Your task to perform on an android device: turn off smart reply in the gmail app Image 0: 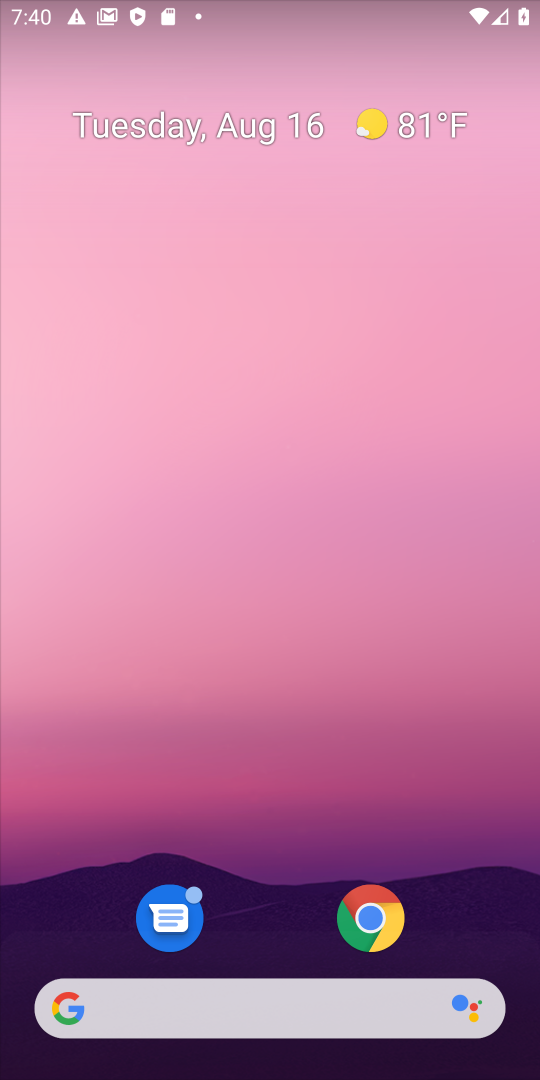
Step 0: drag from (263, 1064) to (380, 294)
Your task to perform on an android device: turn off smart reply in the gmail app Image 1: 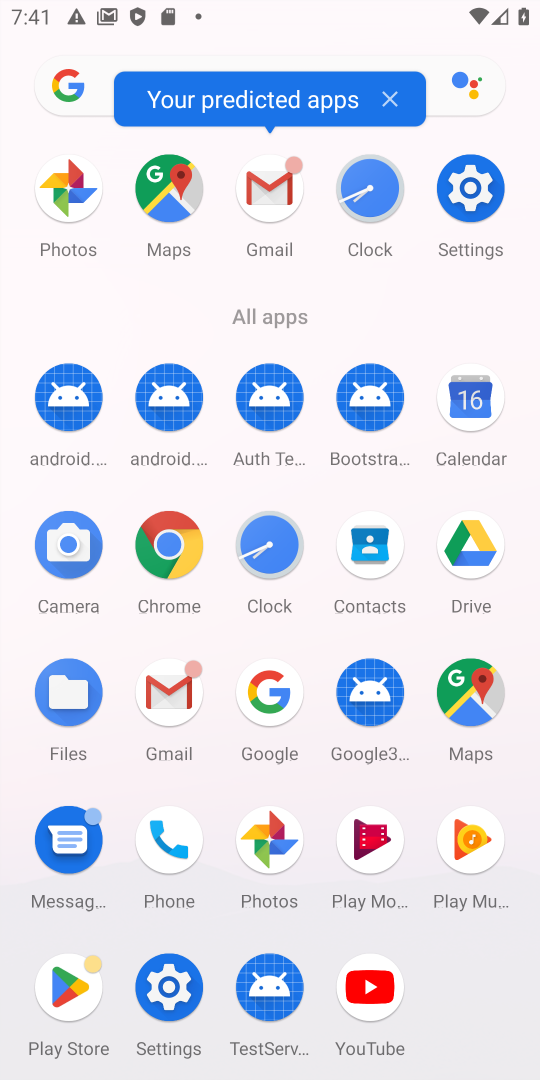
Step 1: click (175, 705)
Your task to perform on an android device: turn off smart reply in the gmail app Image 2: 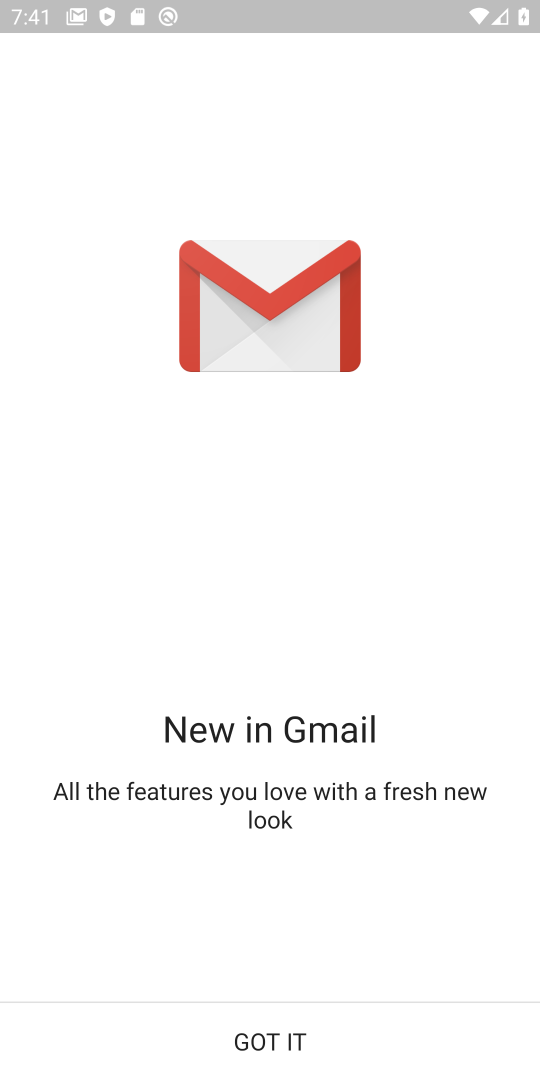
Step 2: click (310, 1051)
Your task to perform on an android device: turn off smart reply in the gmail app Image 3: 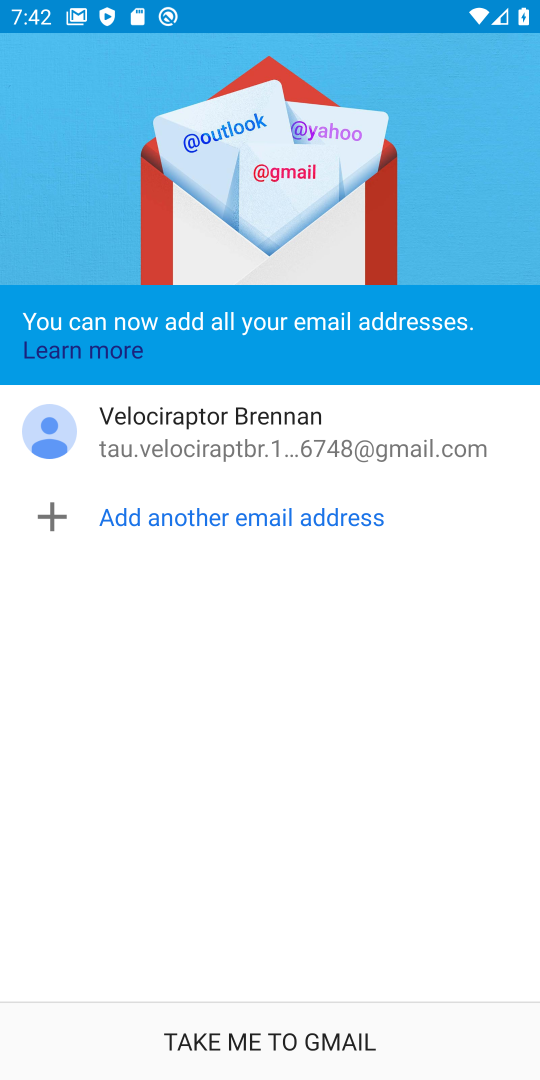
Step 3: click (297, 1026)
Your task to perform on an android device: turn off smart reply in the gmail app Image 4: 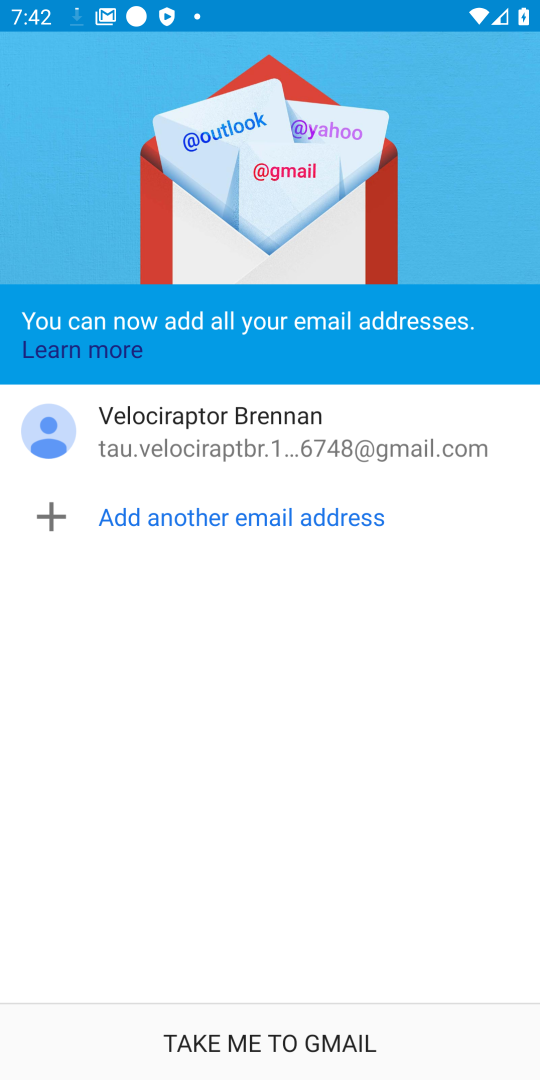
Step 4: click (297, 1047)
Your task to perform on an android device: turn off smart reply in the gmail app Image 5: 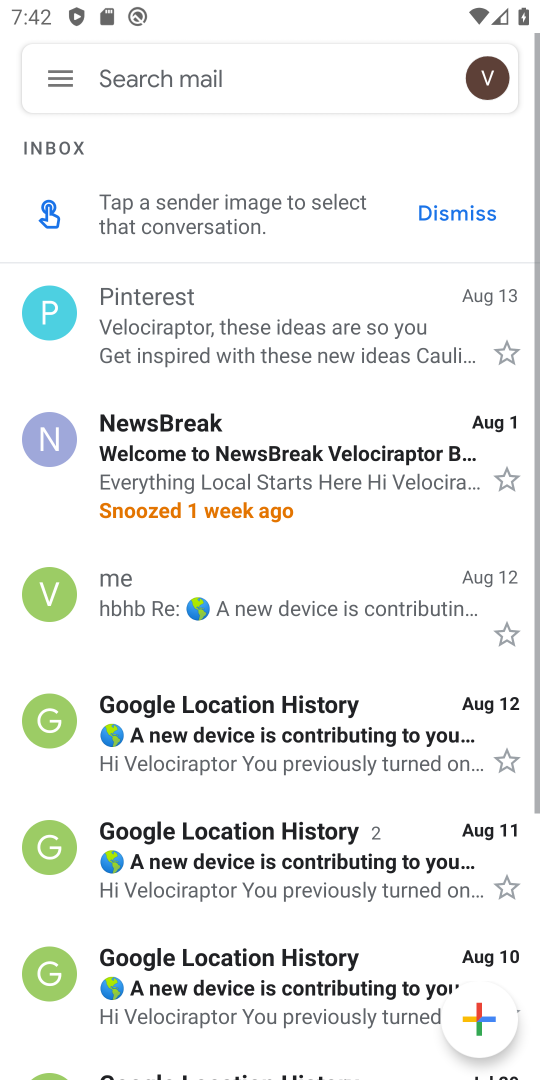
Step 5: click (47, 87)
Your task to perform on an android device: turn off smart reply in the gmail app Image 6: 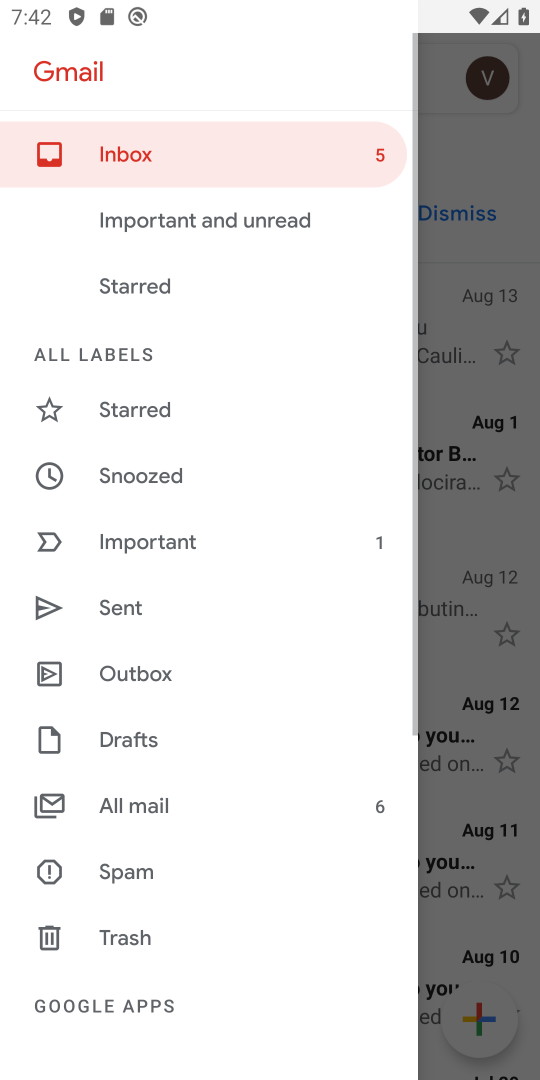
Step 6: drag from (193, 813) to (481, 107)
Your task to perform on an android device: turn off smart reply in the gmail app Image 7: 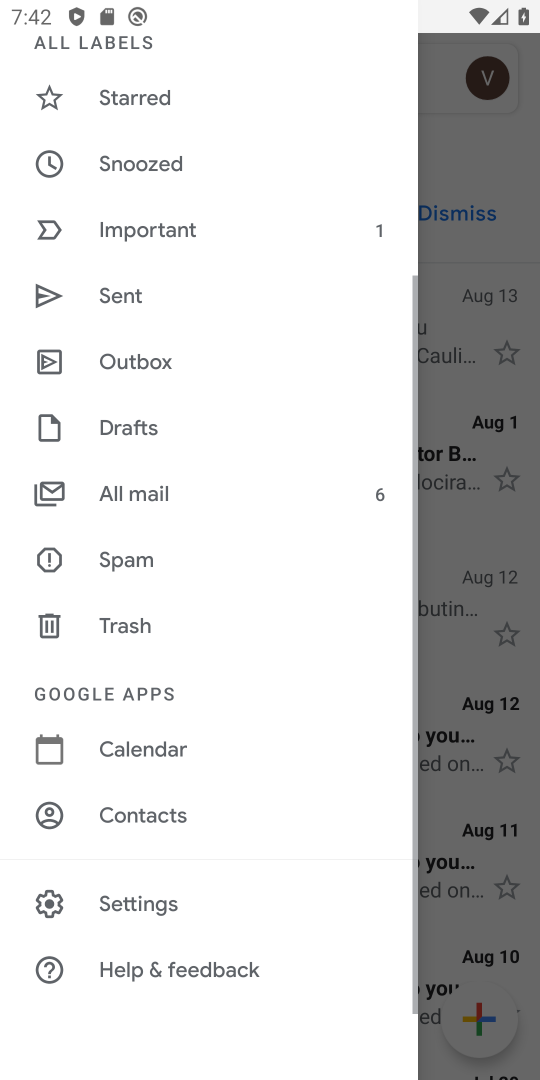
Step 7: click (164, 899)
Your task to perform on an android device: turn off smart reply in the gmail app Image 8: 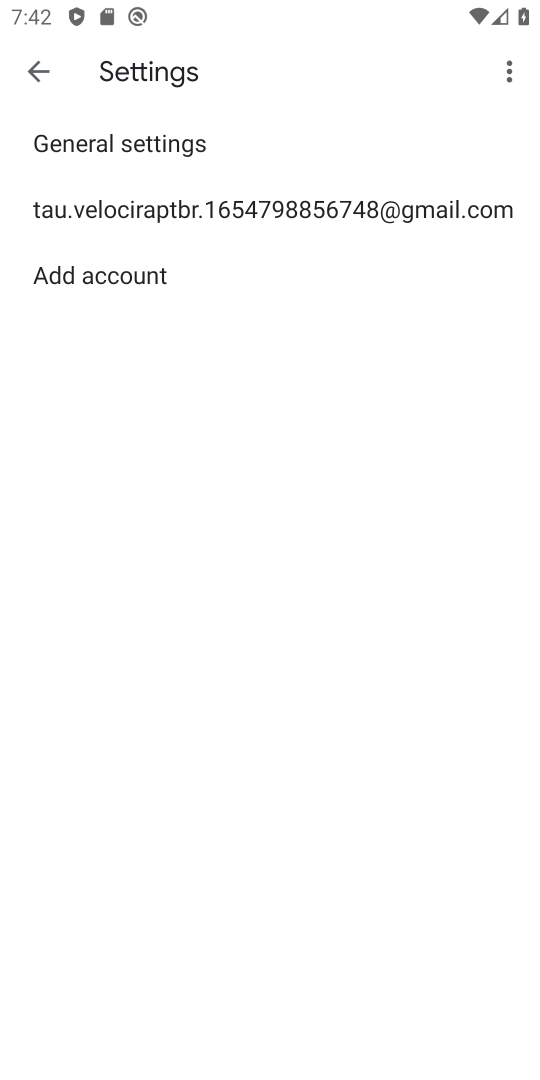
Step 8: click (294, 209)
Your task to perform on an android device: turn off smart reply in the gmail app Image 9: 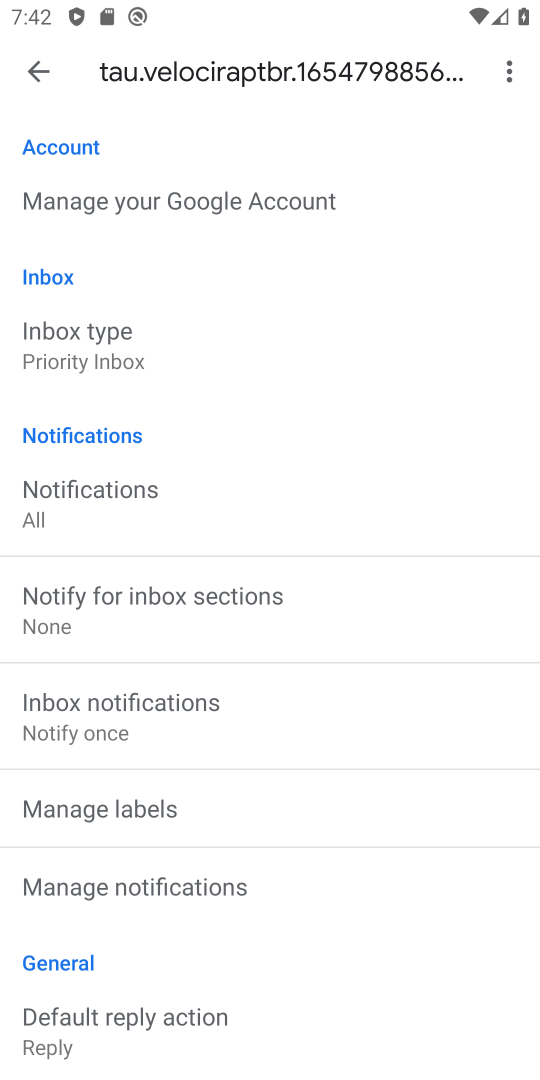
Step 9: drag from (250, 756) to (482, 183)
Your task to perform on an android device: turn off smart reply in the gmail app Image 10: 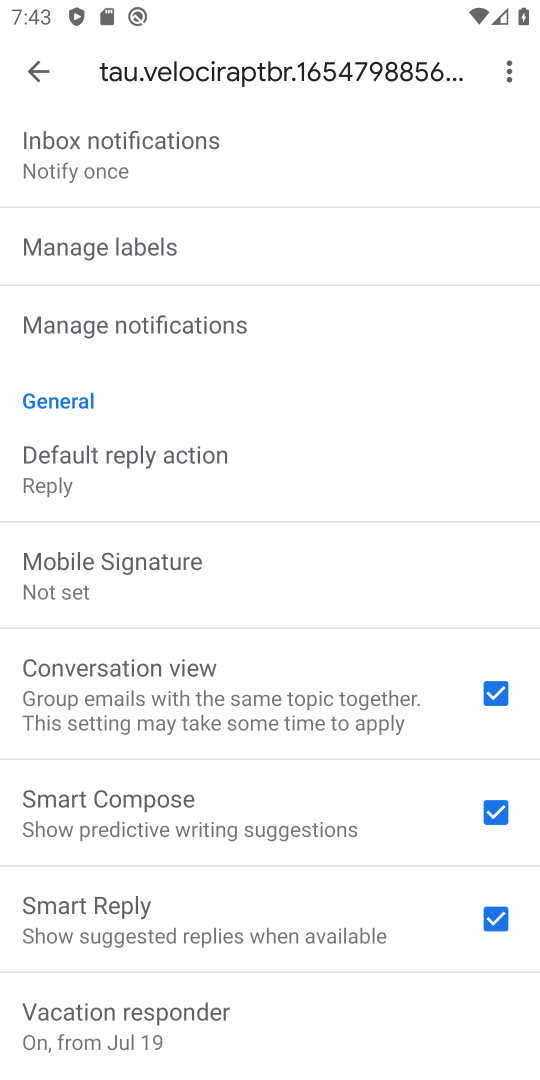
Step 10: drag from (238, 798) to (322, 214)
Your task to perform on an android device: turn off smart reply in the gmail app Image 11: 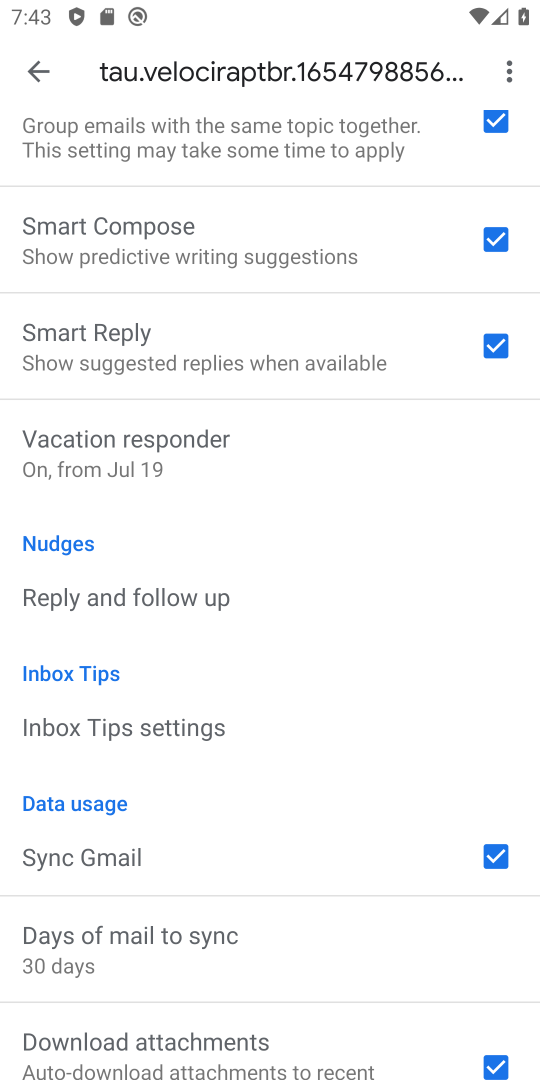
Step 11: drag from (238, 882) to (300, 284)
Your task to perform on an android device: turn off smart reply in the gmail app Image 12: 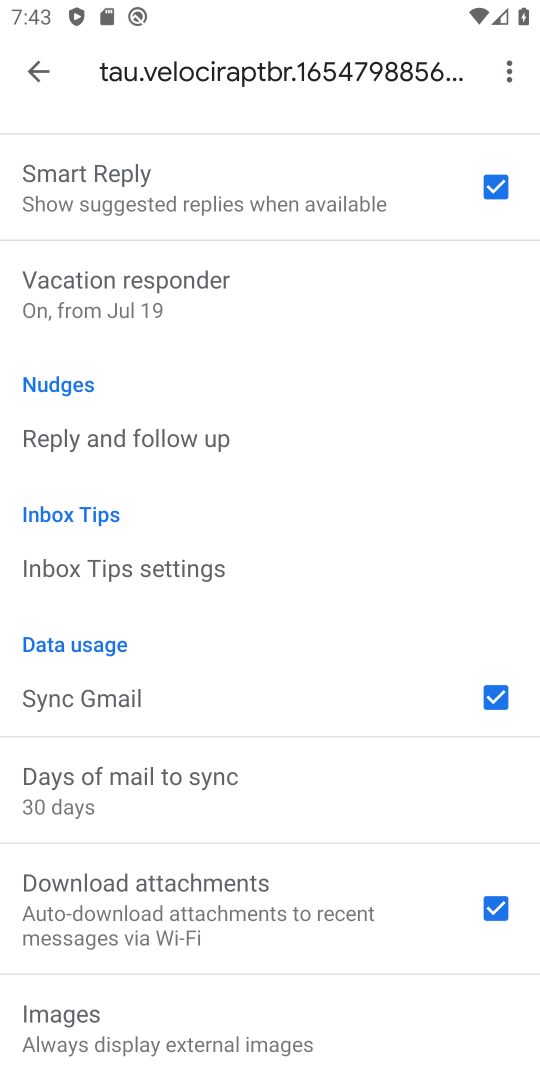
Step 12: drag from (240, 914) to (316, 422)
Your task to perform on an android device: turn off smart reply in the gmail app Image 13: 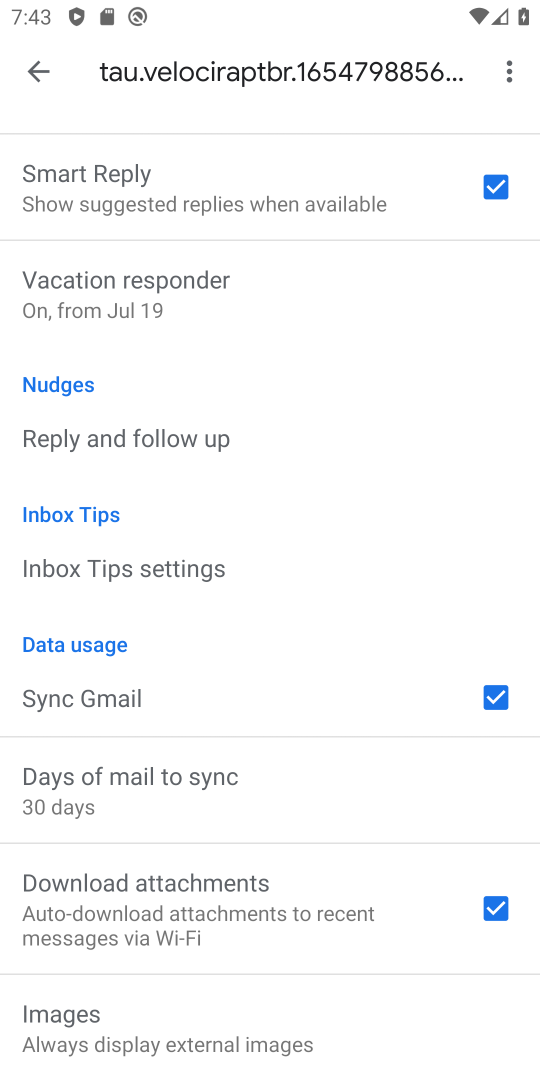
Step 13: click (504, 185)
Your task to perform on an android device: turn off smart reply in the gmail app Image 14: 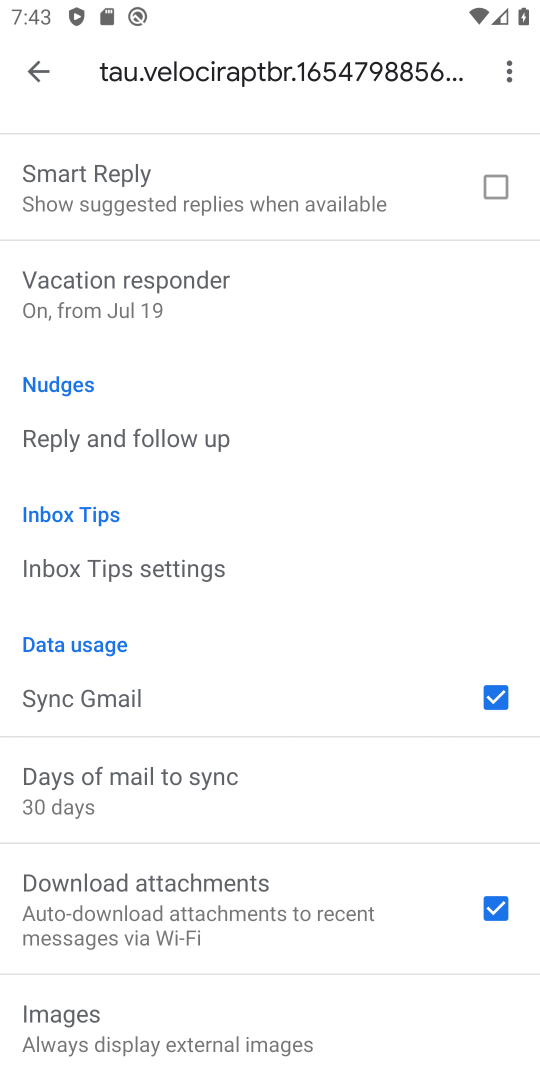
Step 14: task complete